Your task to perform on an android device: toggle pop-ups in chrome Image 0: 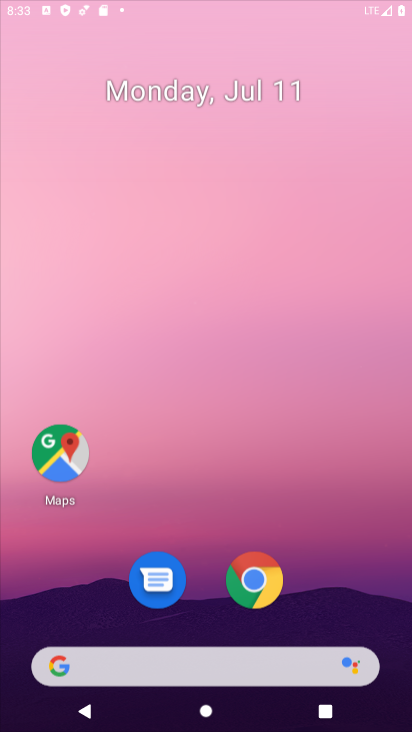
Step 0: drag from (333, 569) to (308, 420)
Your task to perform on an android device: toggle pop-ups in chrome Image 1: 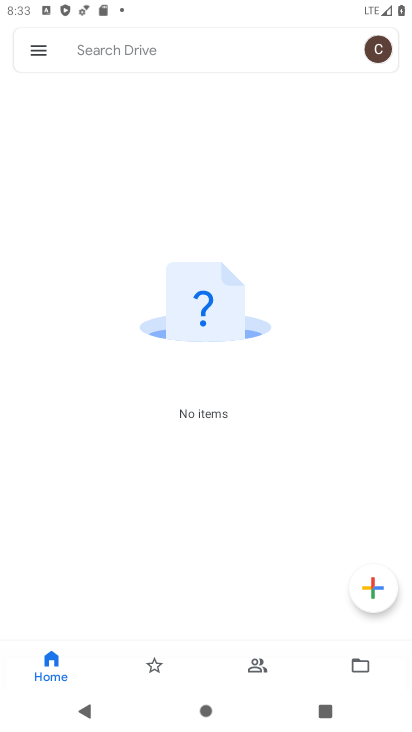
Step 1: press home button
Your task to perform on an android device: toggle pop-ups in chrome Image 2: 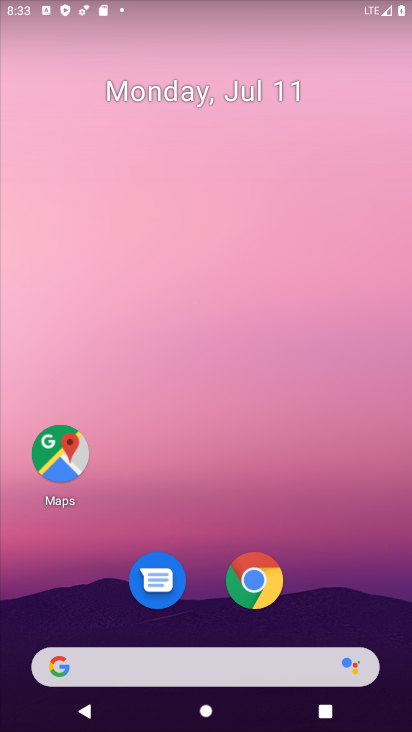
Step 2: click (262, 579)
Your task to perform on an android device: toggle pop-ups in chrome Image 3: 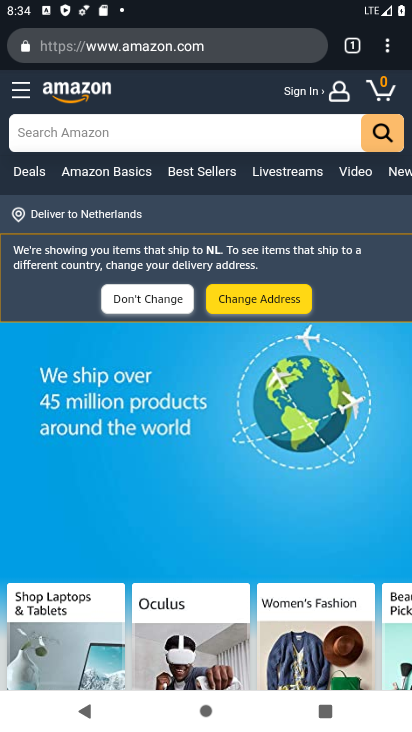
Step 3: click (386, 44)
Your task to perform on an android device: toggle pop-ups in chrome Image 4: 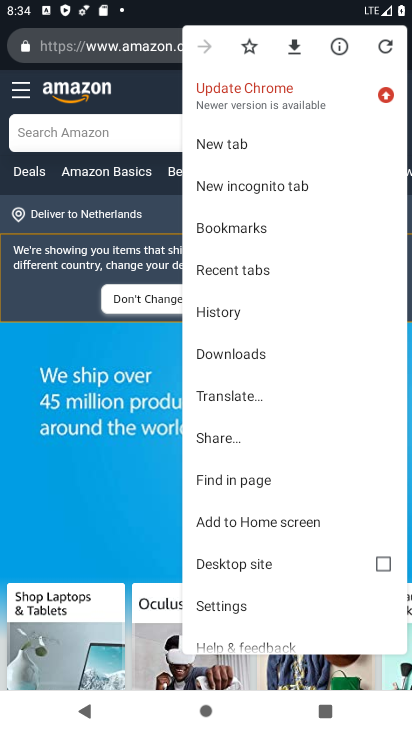
Step 4: click (236, 604)
Your task to perform on an android device: toggle pop-ups in chrome Image 5: 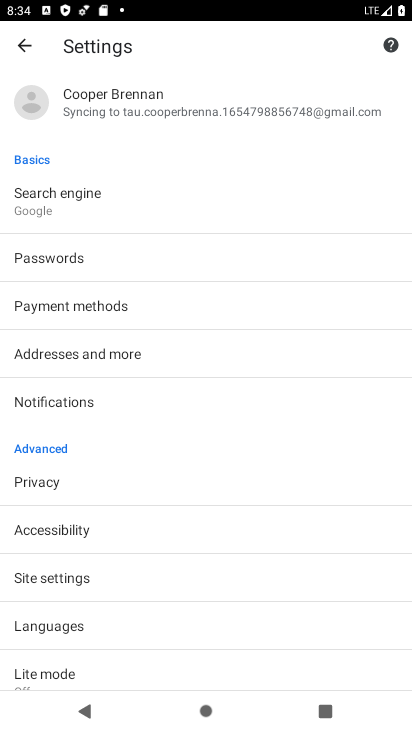
Step 5: click (78, 574)
Your task to perform on an android device: toggle pop-ups in chrome Image 6: 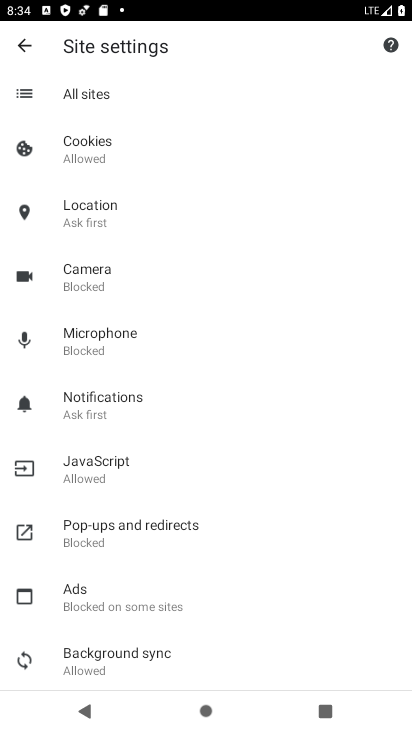
Step 6: click (126, 528)
Your task to perform on an android device: toggle pop-ups in chrome Image 7: 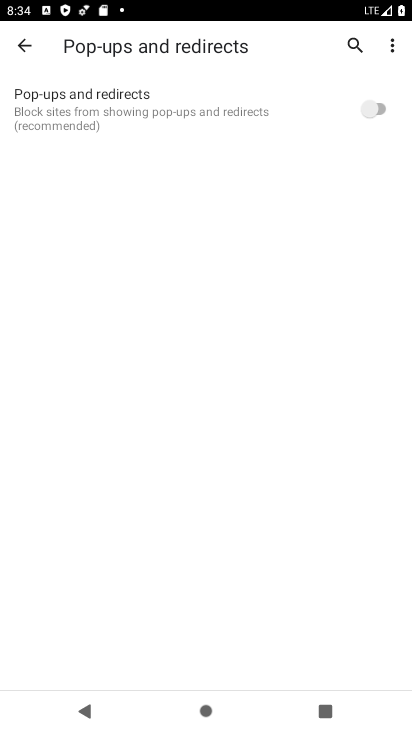
Step 7: click (374, 98)
Your task to perform on an android device: toggle pop-ups in chrome Image 8: 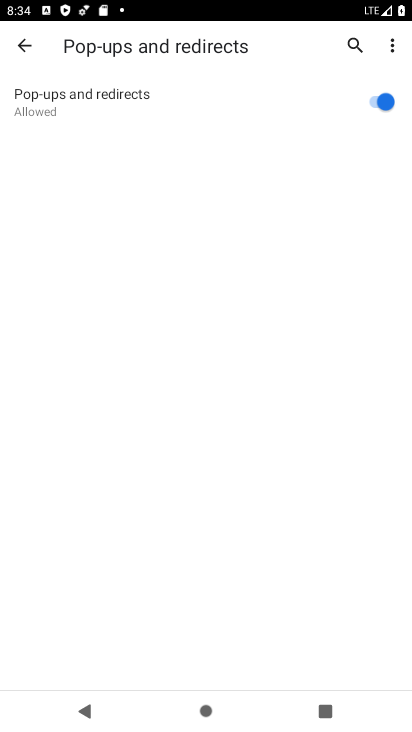
Step 8: task complete